Your task to perform on an android device: star an email in the gmail app Image 0: 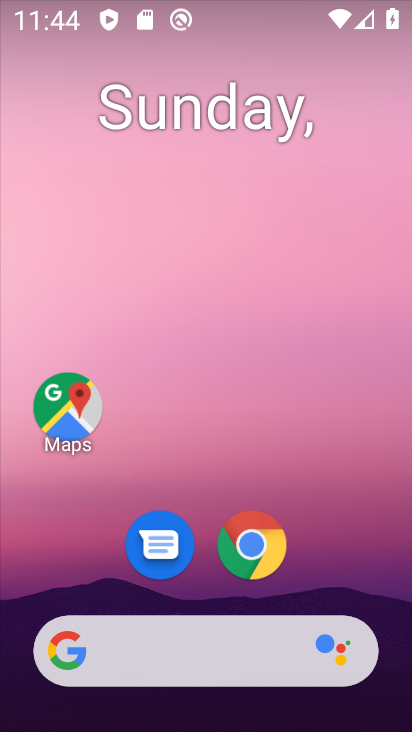
Step 0: drag from (357, 559) to (353, 222)
Your task to perform on an android device: star an email in the gmail app Image 1: 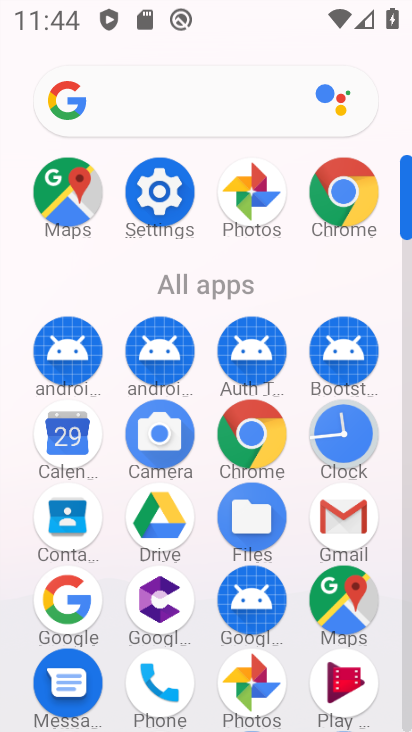
Step 1: click (354, 527)
Your task to perform on an android device: star an email in the gmail app Image 2: 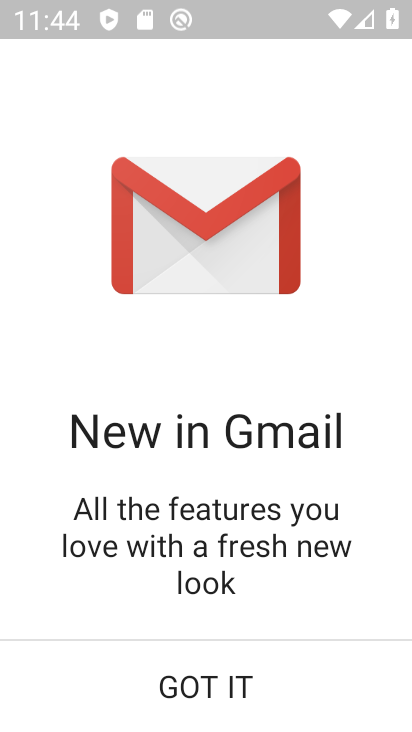
Step 2: click (220, 679)
Your task to perform on an android device: star an email in the gmail app Image 3: 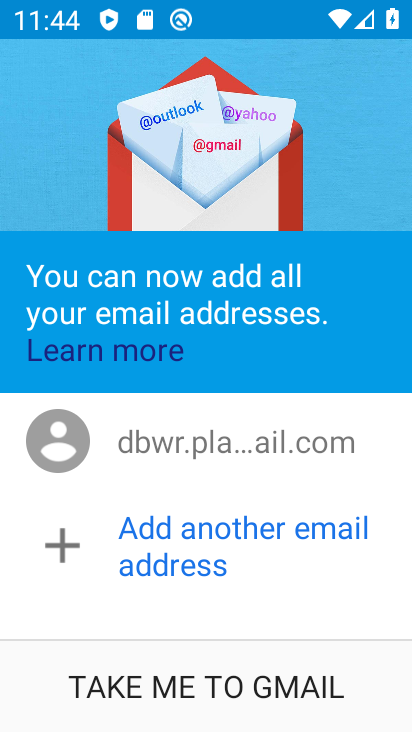
Step 3: click (220, 679)
Your task to perform on an android device: star an email in the gmail app Image 4: 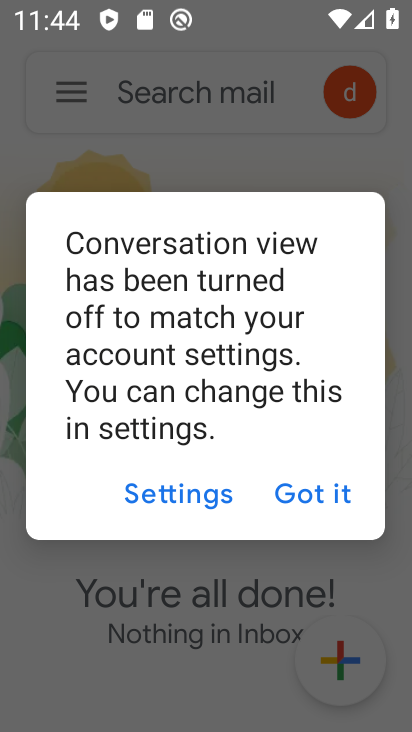
Step 4: click (301, 489)
Your task to perform on an android device: star an email in the gmail app Image 5: 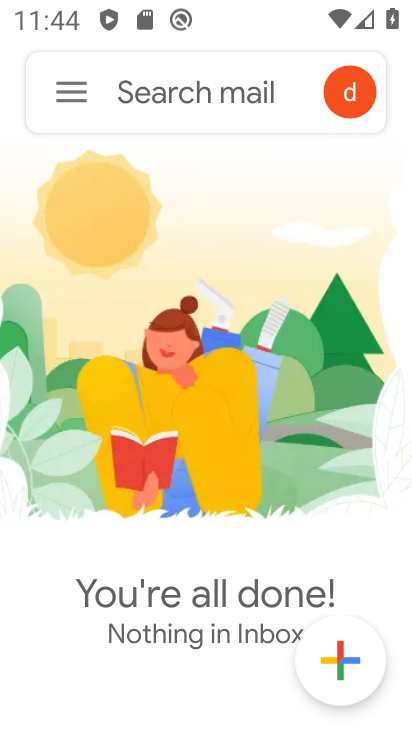
Step 5: task complete